Your task to perform on an android device: change notifications settings Image 0: 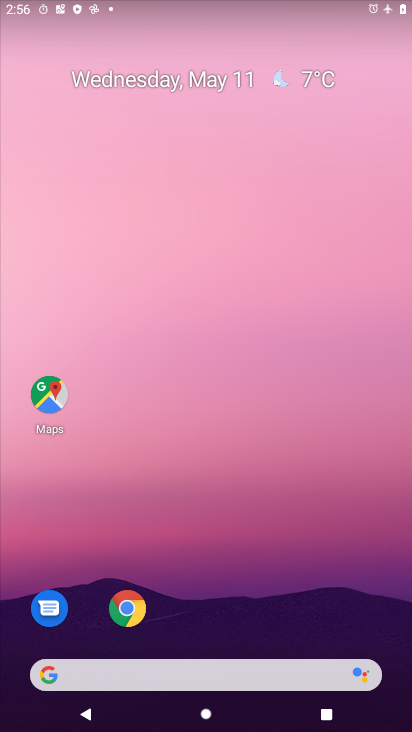
Step 0: drag from (250, 599) to (157, 85)
Your task to perform on an android device: change notifications settings Image 1: 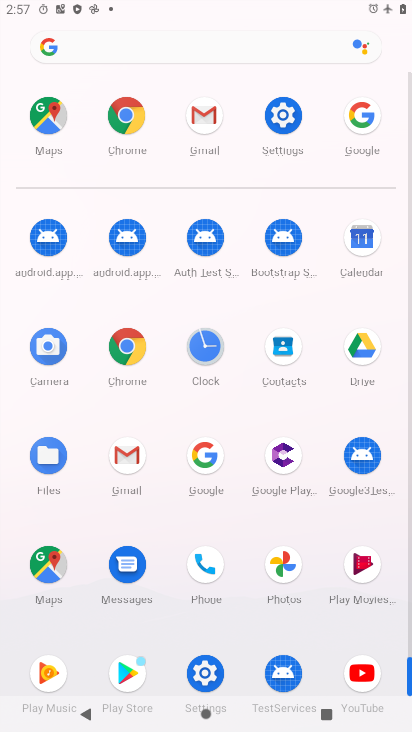
Step 1: click (279, 118)
Your task to perform on an android device: change notifications settings Image 2: 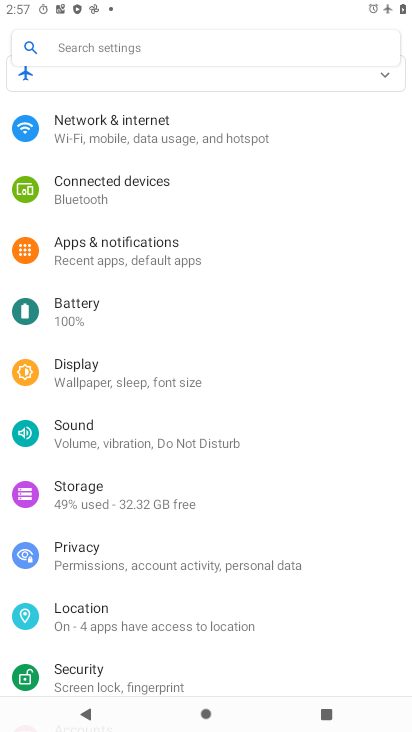
Step 2: click (139, 257)
Your task to perform on an android device: change notifications settings Image 3: 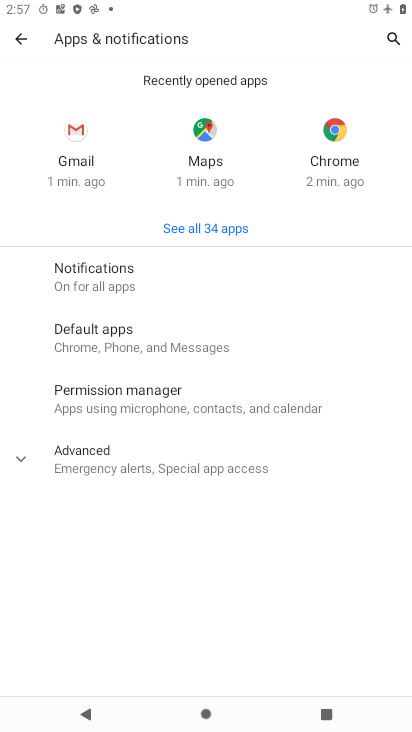
Step 3: click (165, 273)
Your task to perform on an android device: change notifications settings Image 4: 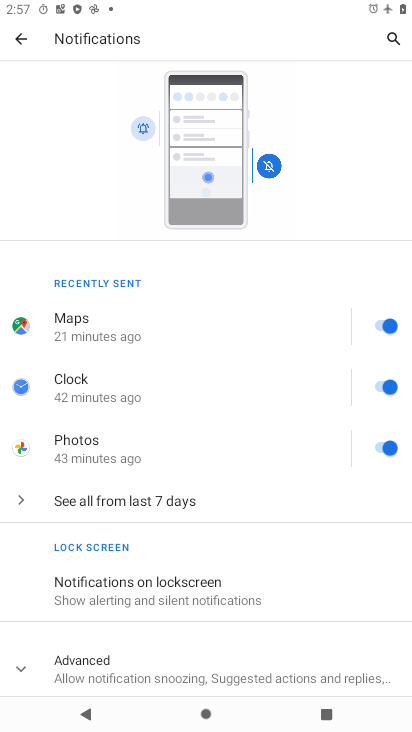
Step 4: drag from (235, 576) to (272, 241)
Your task to perform on an android device: change notifications settings Image 5: 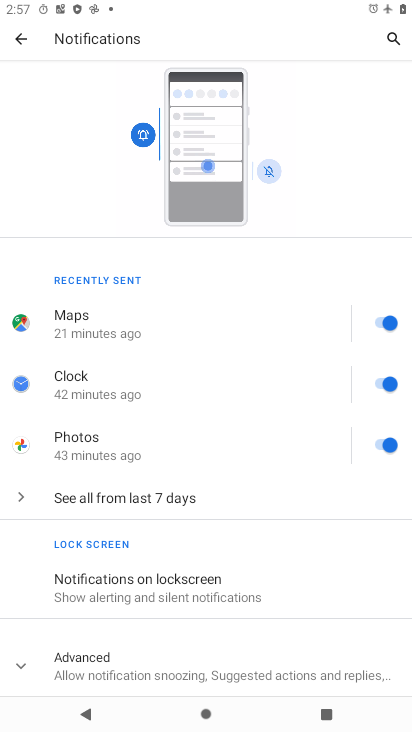
Step 5: click (105, 666)
Your task to perform on an android device: change notifications settings Image 6: 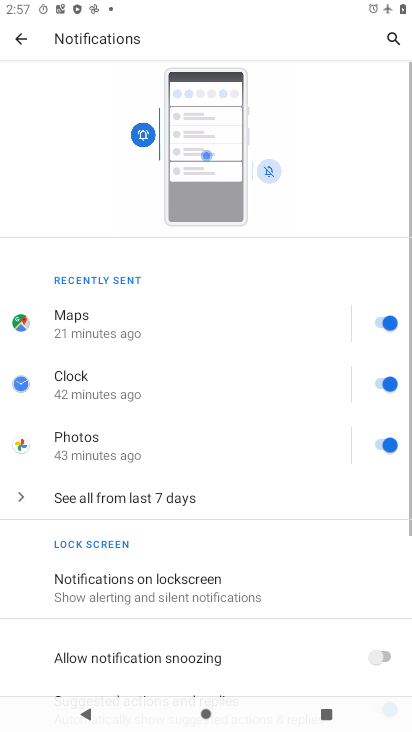
Step 6: drag from (301, 521) to (296, 175)
Your task to perform on an android device: change notifications settings Image 7: 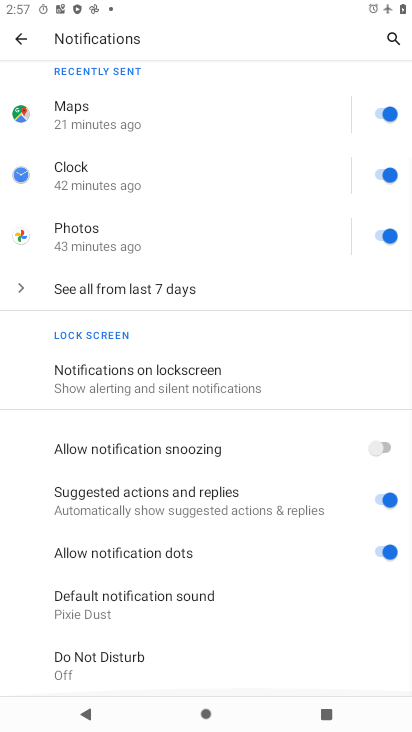
Step 7: click (377, 447)
Your task to perform on an android device: change notifications settings Image 8: 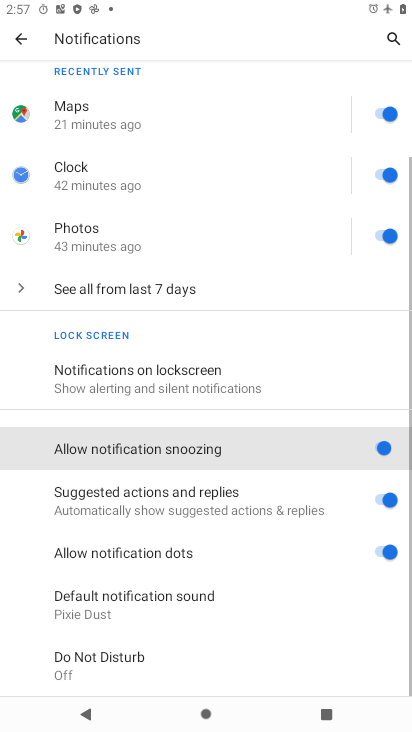
Step 8: click (384, 502)
Your task to perform on an android device: change notifications settings Image 9: 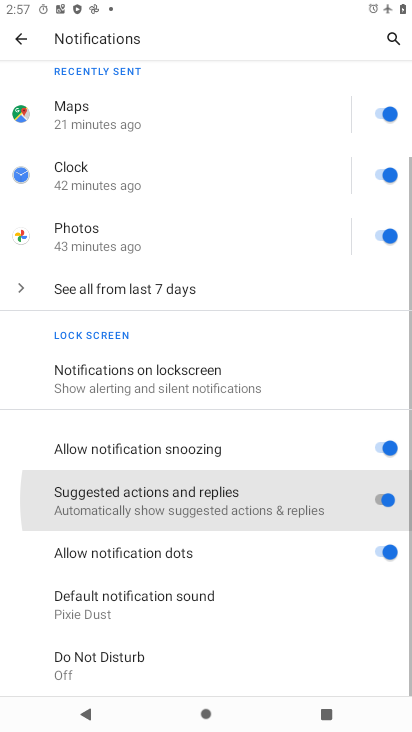
Step 9: click (388, 549)
Your task to perform on an android device: change notifications settings Image 10: 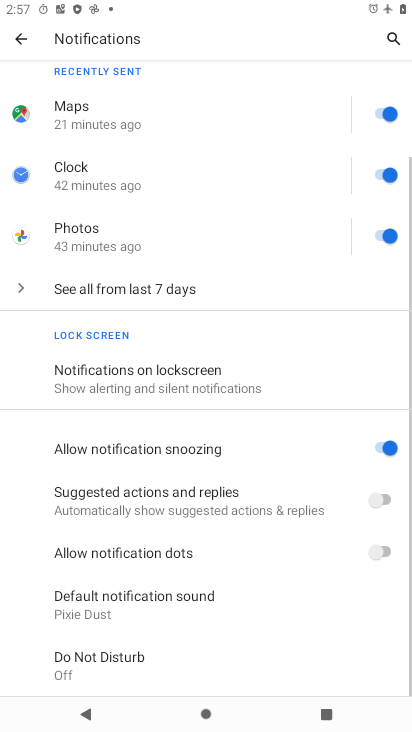
Step 10: task complete